Your task to perform on an android device: Open settings Image 0: 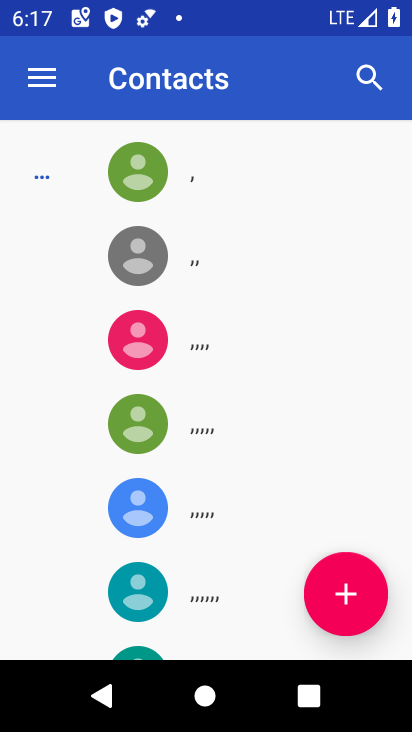
Step 0: press home button
Your task to perform on an android device: Open settings Image 1: 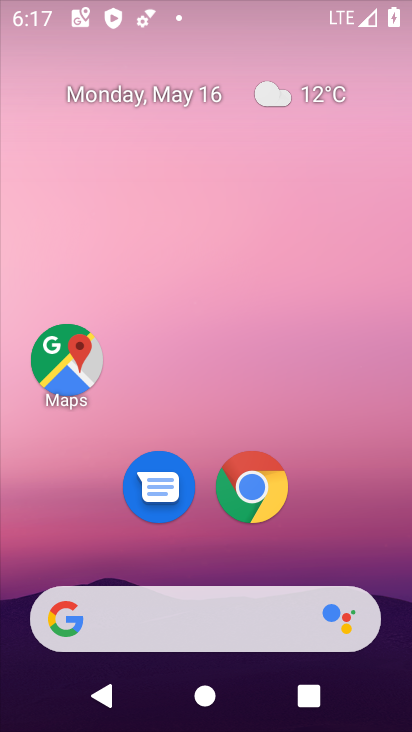
Step 1: drag from (337, 529) to (288, 111)
Your task to perform on an android device: Open settings Image 2: 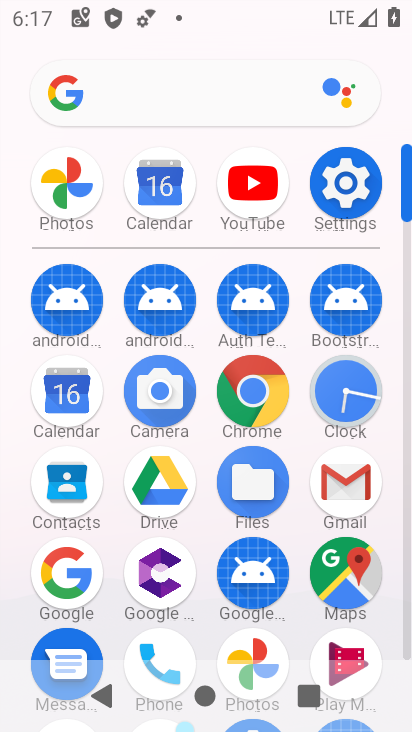
Step 2: click (348, 201)
Your task to perform on an android device: Open settings Image 3: 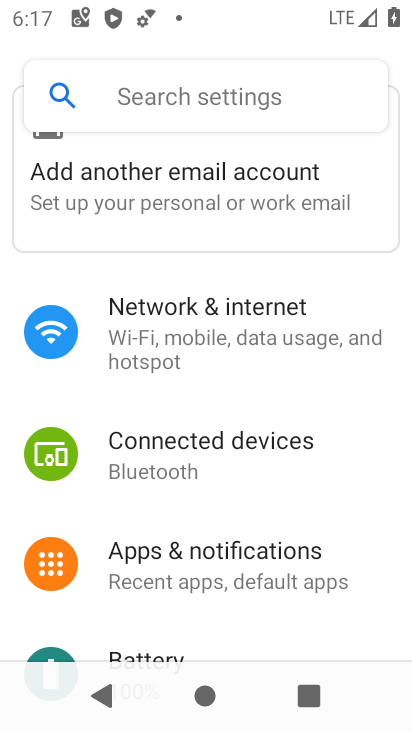
Step 3: task complete